Your task to perform on an android device: turn off javascript in the chrome app Image 0: 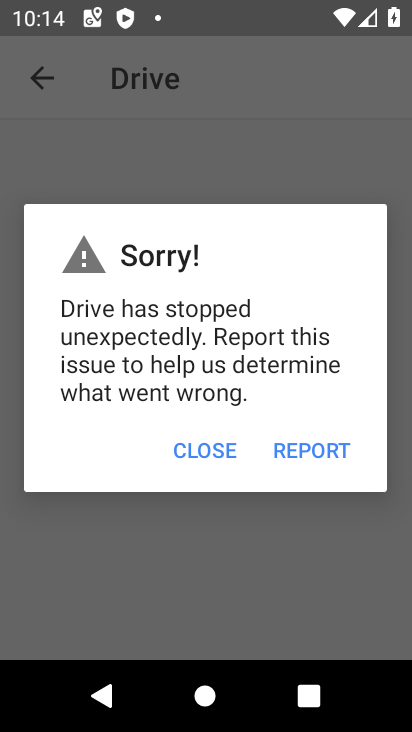
Step 0: drag from (383, 578) to (373, 283)
Your task to perform on an android device: turn off javascript in the chrome app Image 1: 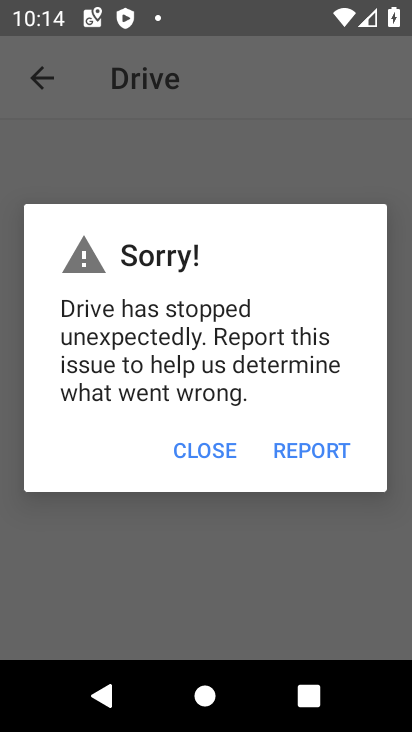
Step 1: press home button
Your task to perform on an android device: turn off javascript in the chrome app Image 2: 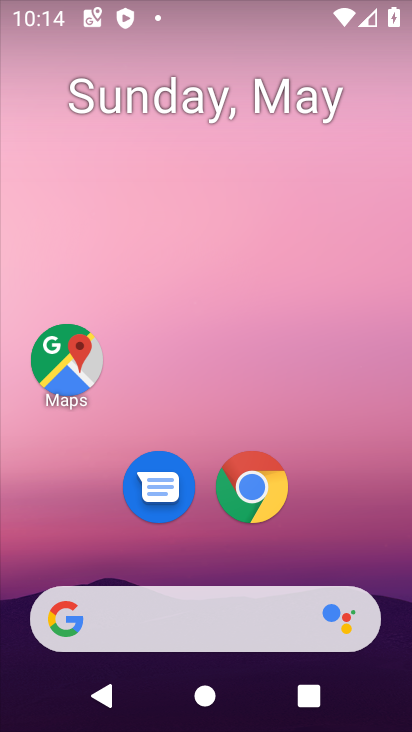
Step 2: drag from (360, 565) to (371, 192)
Your task to perform on an android device: turn off javascript in the chrome app Image 3: 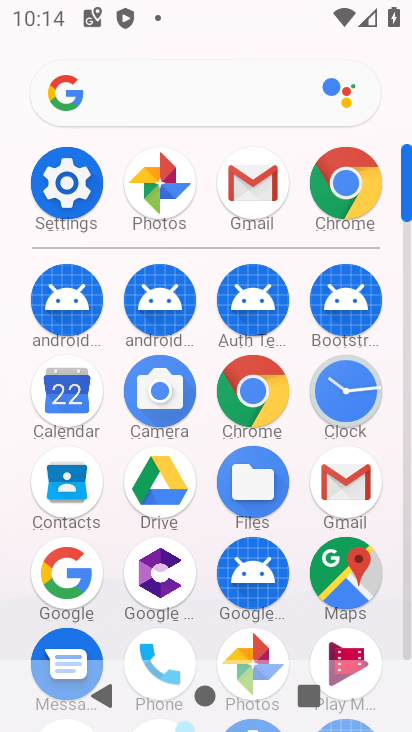
Step 3: click (259, 399)
Your task to perform on an android device: turn off javascript in the chrome app Image 4: 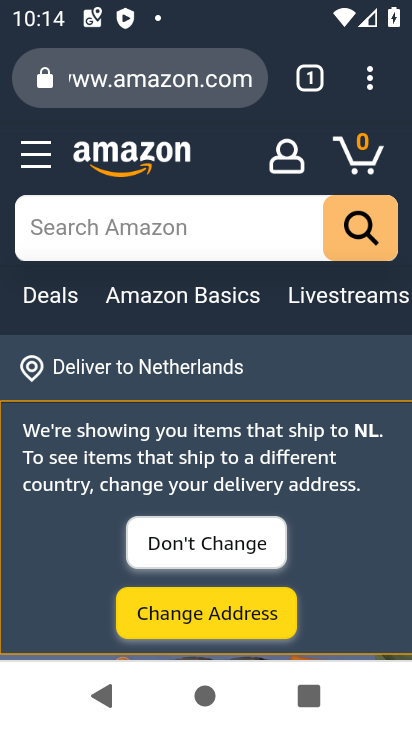
Step 4: click (372, 87)
Your task to perform on an android device: turn off javascript in the chrome app Image 5: 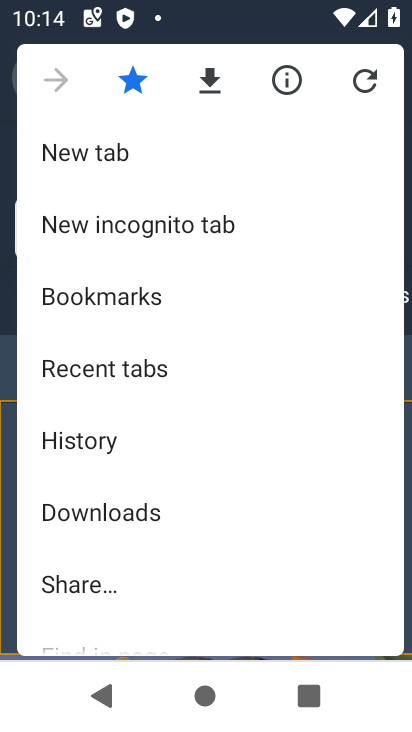
Step 5: drag from (299, 448) to (306, 338)
Your task to perform on an android device: turn off javascript in the chrome app Image 6: 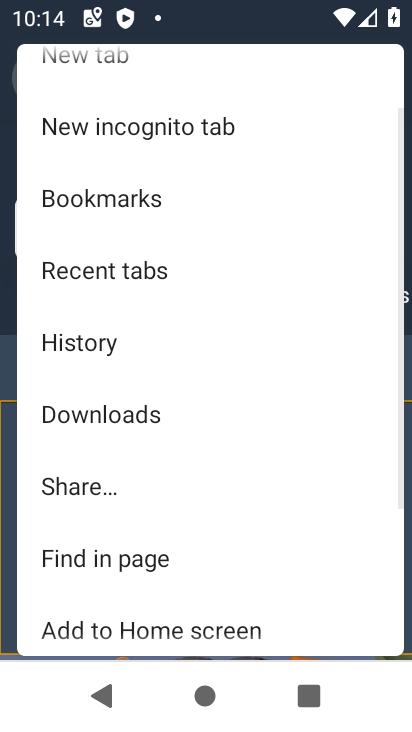
Step 6: drag from (291, 544) to (308, 413)
Your task to perform on an android device: turn off javascript in the chrome app Image 7: 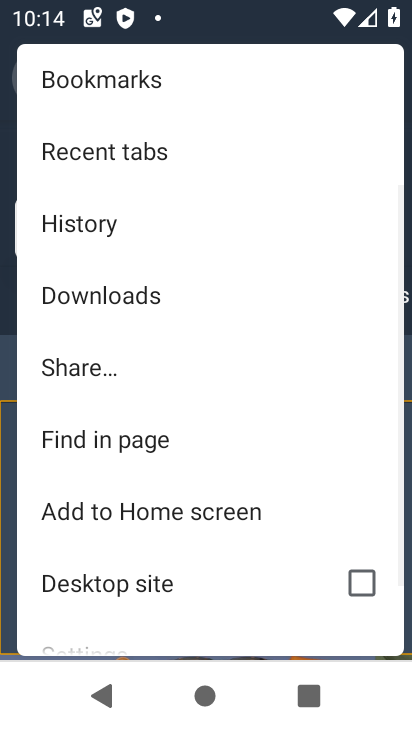
Step 7: drag from (271, 582) to (296, 427)
Your task to perform on an android device: turn off javascript in the chrome app Image 8: 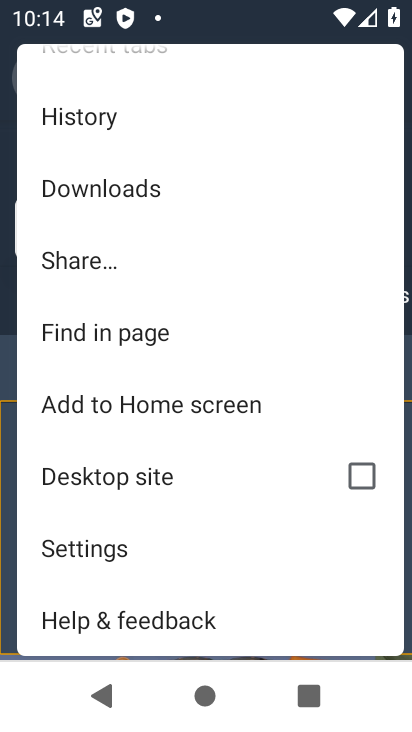
Step 8: click (98, 559)
Your task to perform on an android device: turn off javascript in the chrome app Image 9: 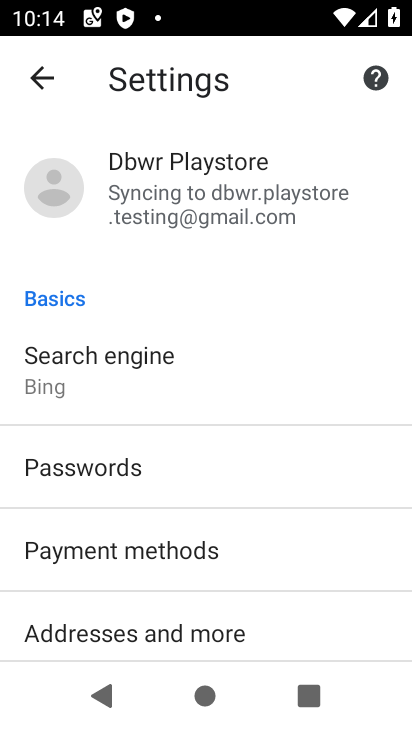
Step 9: drag from (341, 557) to (338, 448)
Your task to perform on an android device: turn off javascript in the chrome app Image 10: 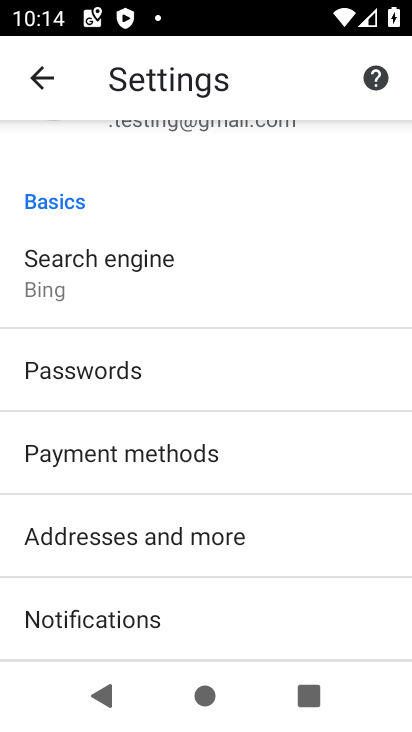
Step 10: drag from (309, 579) to (311, 469)
Your task to perform on an android device: turn off javascript in the chrome app Image 11: 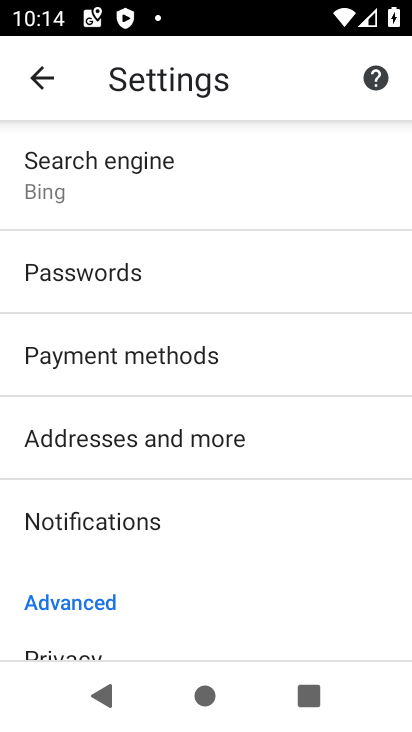
Step 11: drag from (302, 591) to (316, 489)
Your task to perform on an android device: turn off javascript in the chrome app Image 12: 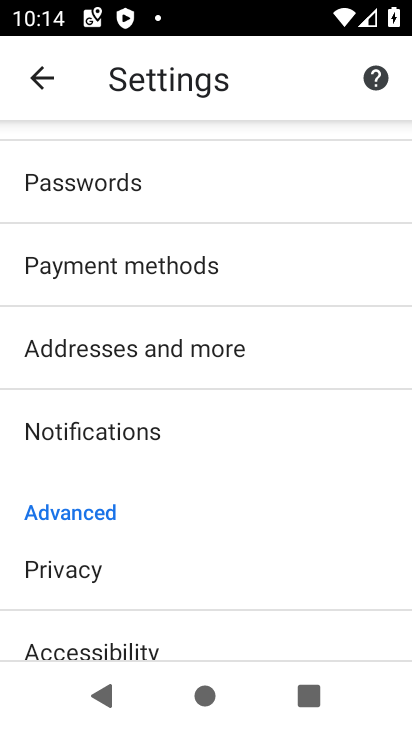
Step 12: drag from (310, 579) to (305, 465)
Your task to perform on an android device: turn off javascript in the chrome app Image 13: 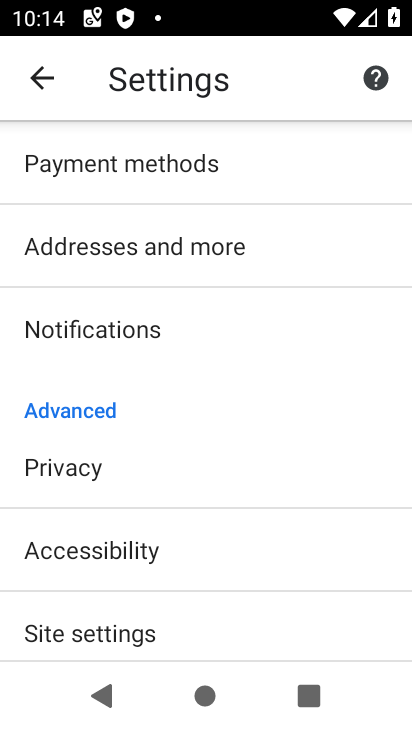
Step 13: drag from (308, 555) to (308, 445)
Your task to perform on an android device: turn off javascript in the chrome app Image 14: 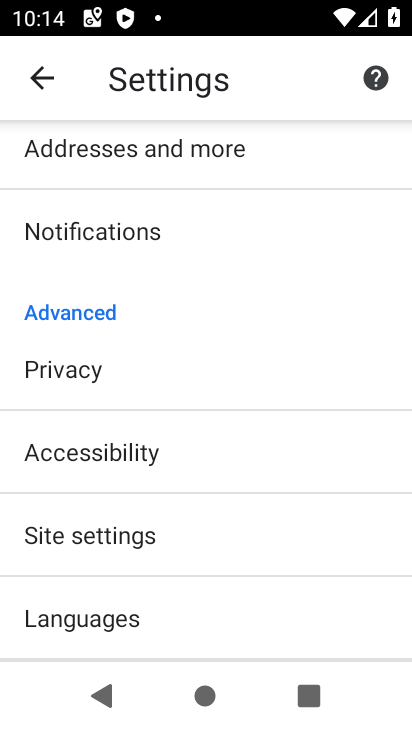
Step 14: drag from (302, 568) to (305, 468)
Your task to perform on an android device: turn off javascript in the chrome app Image 15: 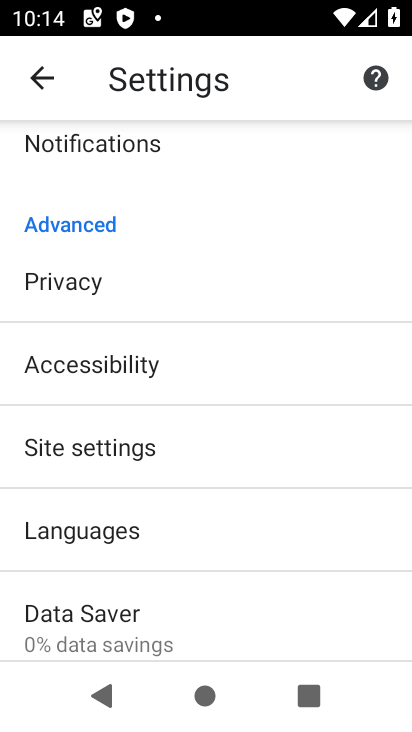
Step 15: click (219, 463)
Your task to perform on an android device: turn off javascript in the chrome app Image 16: 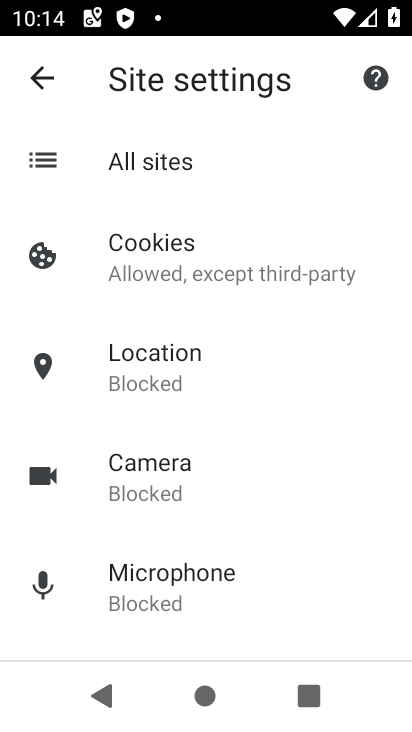
Step 16: drag from (287, 582) to (286, 463)
Your task to perform on an android device: turn off javascript in the chrome app Image 17: 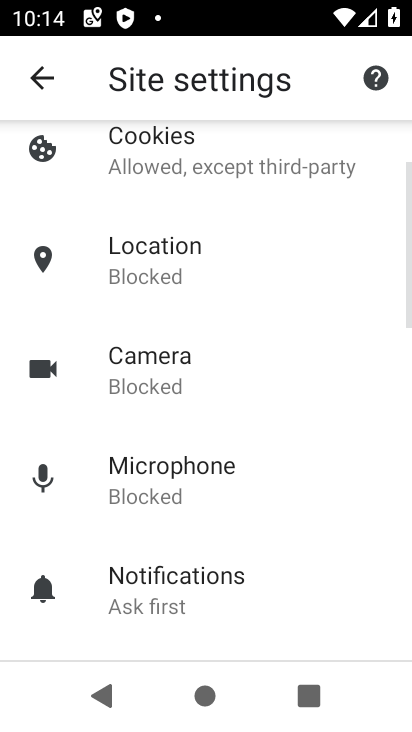
Step 17: drag from (303, 582) to (301, 503)
Your task to perform on an android device: turn off javascript in the chrome app Image 18: 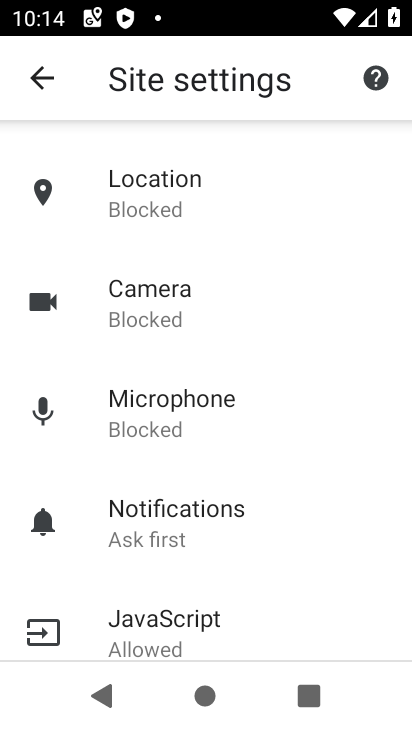
Step 18: drag from (299, 602) to (303, 514)
Your task to perform on an android device: turn off javascript in the chrome app Image 19: 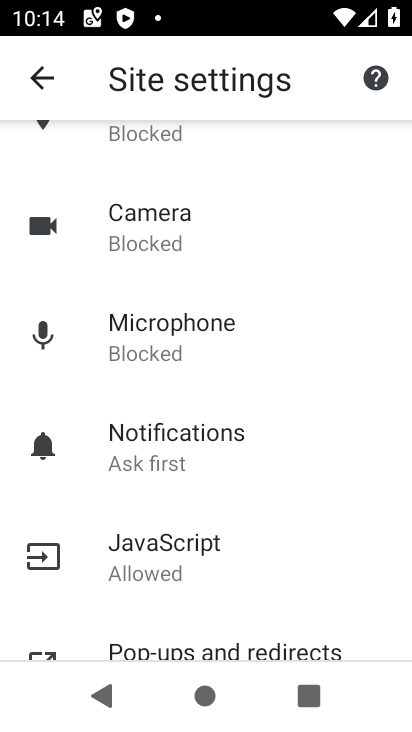
Step 19: click (150, 579)
Your task to perform on an android device: turn off javascript in the chrome app Image 20: 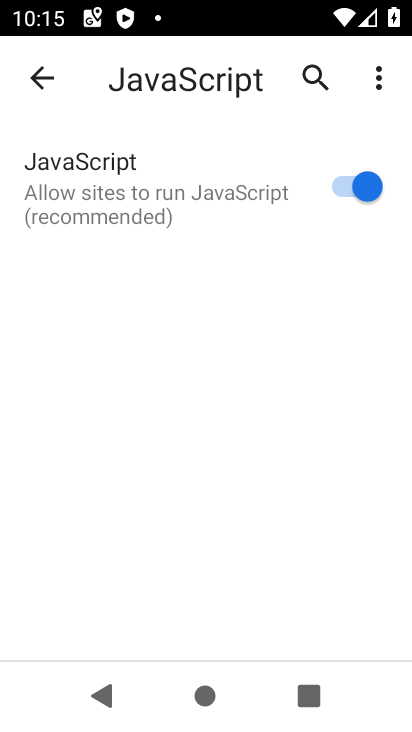
Step 20: click (360, 200)
Your task to perform on an android device: turn off javascript in the chrome app Image 21: 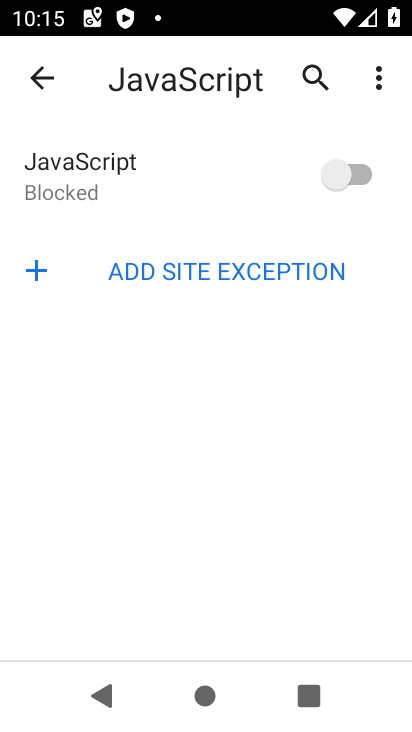
Step 21: task complete